Your task to perform on an android device: Find coffee shops on Maps Image 0: 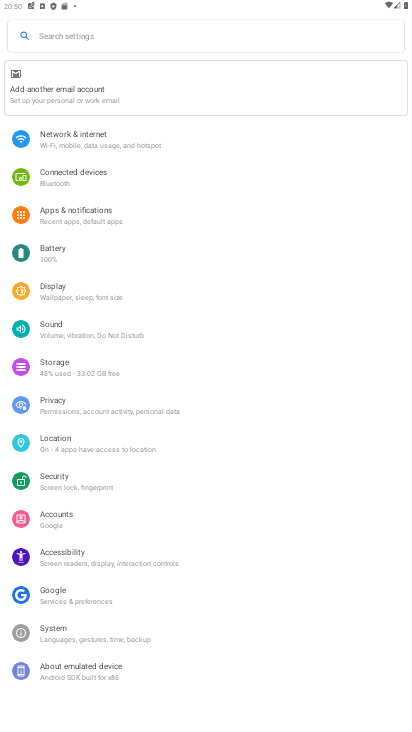
Step 0: press home button
Your task to perform on an android device: Find coffee shops on Maps Image 1: 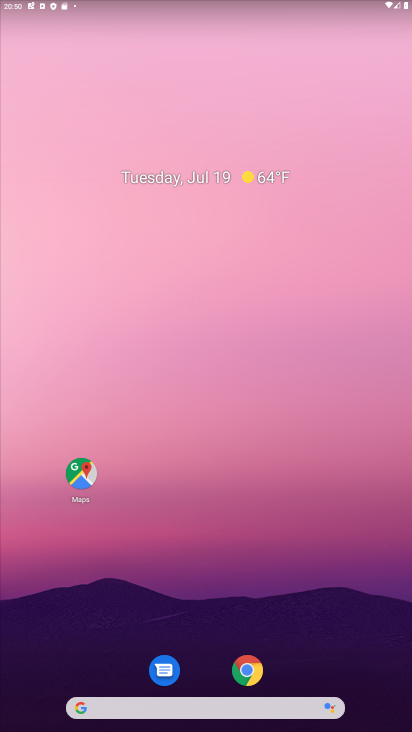
Step 1: click (86, 478)
Your task to perform on an android device: Find coffee shops on Maps Image 2: 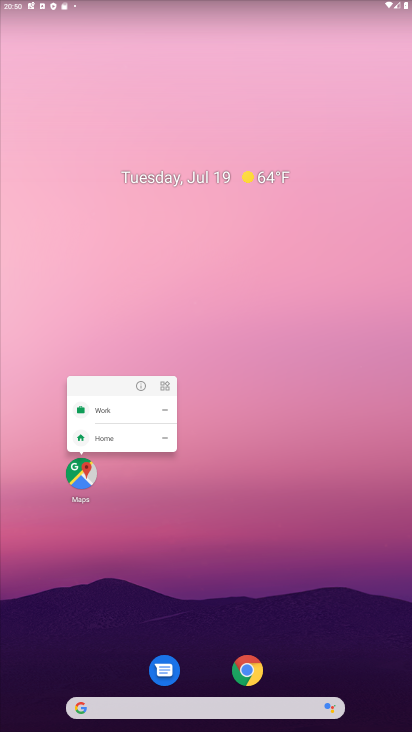
Step 2: click (86, 478)
Your task to perform on an android device: Find coffee shops on Maps Image 3: 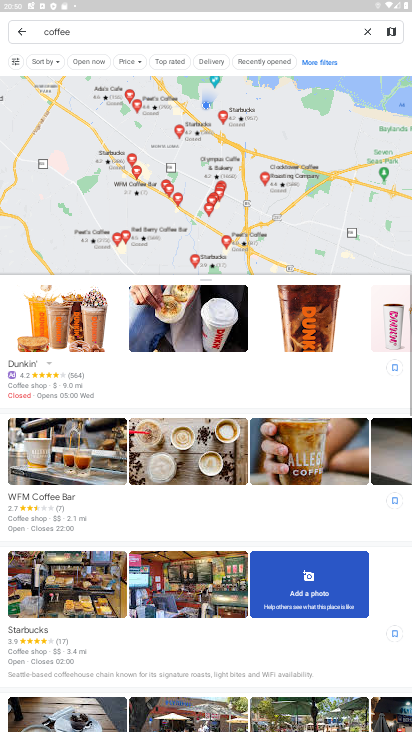
Step 3: task complete